Your task to perform on an android device: Open accessibility settings Image 0: 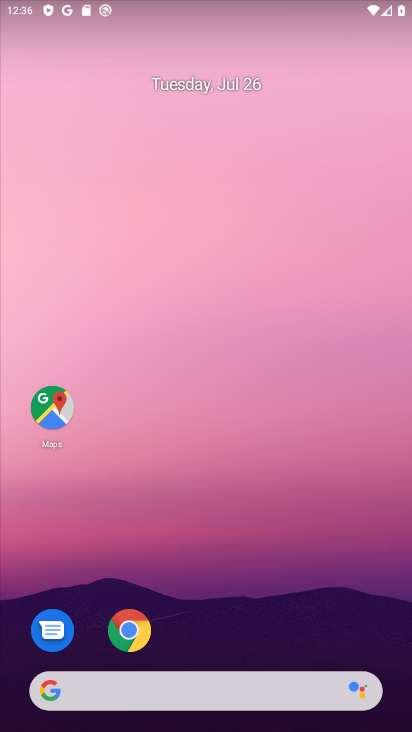
Step 0: drag from (163, 536) to (132, 191)
Your task to perform on an android device: Open accessibility settings Image 1: 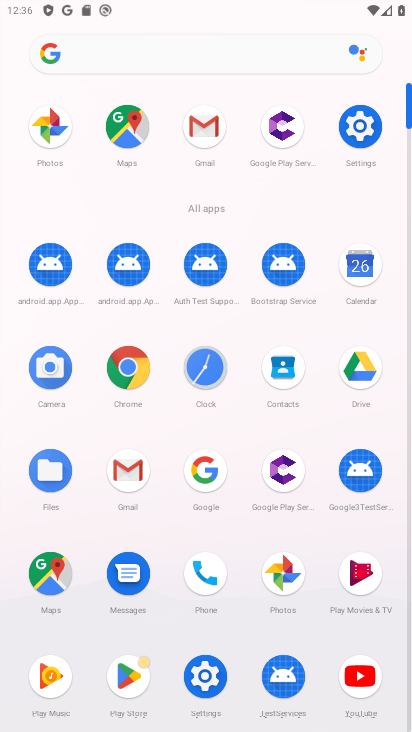
Step 1: click (350, 129)
Your task to perform on an android device: Open accessibility settings Image 2: 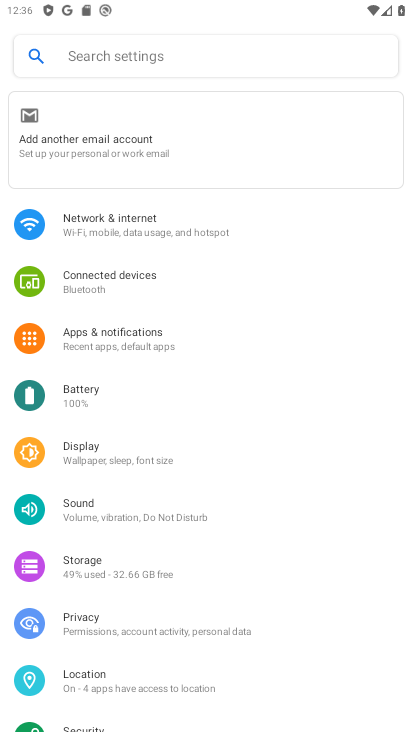
Step 2: drag from (101, 641) to (101, 275)
Your task to perform on an android device: Open accessibility settings Image 3: 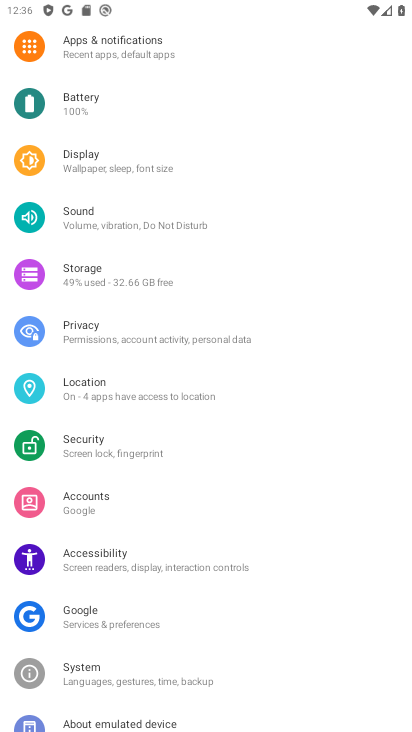
Step 3: click (96, 569)
Your task to perform on an android device: Open accessibility settings Image 4: 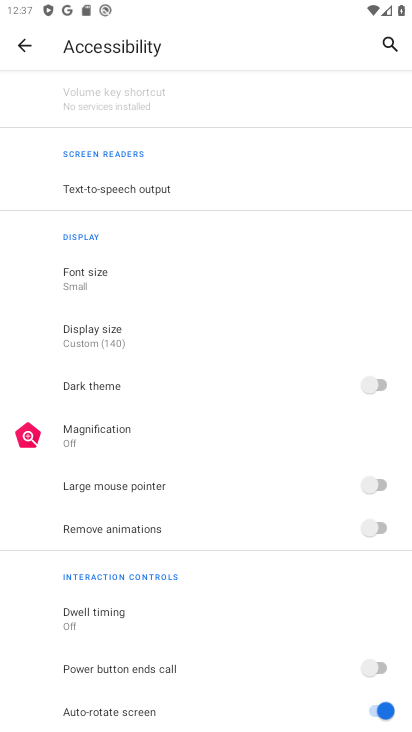
Step 4: task complete